Your task to perform on an android device: find which apps use the phone's location Image 0: 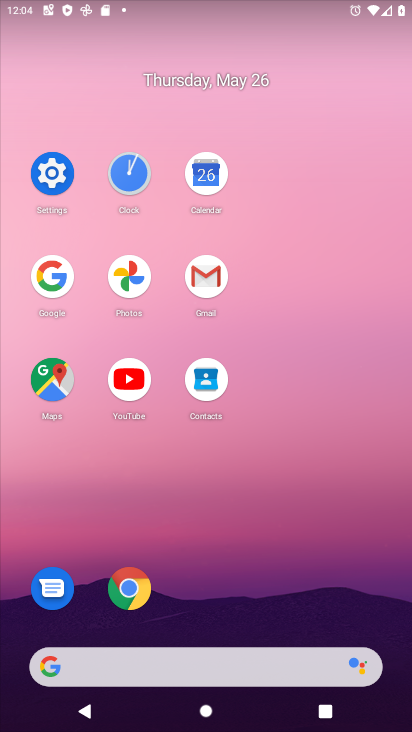
Step 0: click (63, 181)
Your task to perform on an android device: find which apps use the phone's location Image 1: 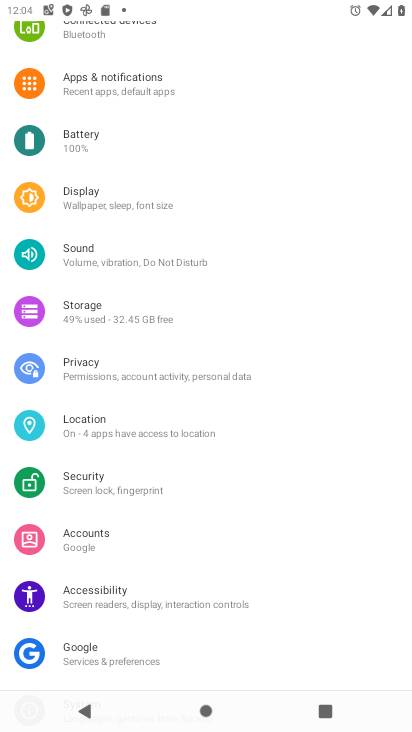
Step 1: click (127, 423)
Your task to perform on an android device: find which apps use the phone's location Image 2: 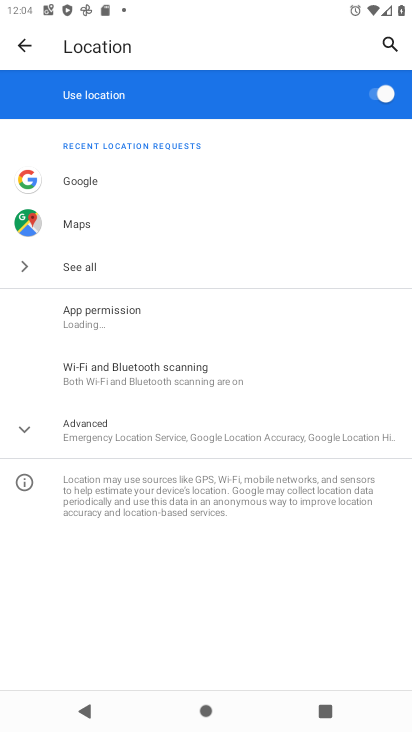
Step 2: task complete